Your task to perform on an android device: Open Google Maps Image 0: 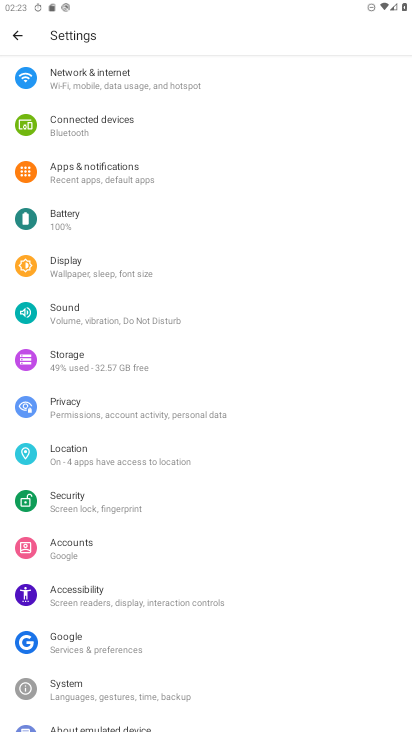
Step 0: press home button
Your task to perform on an android device: Open Google Maps Image 1: 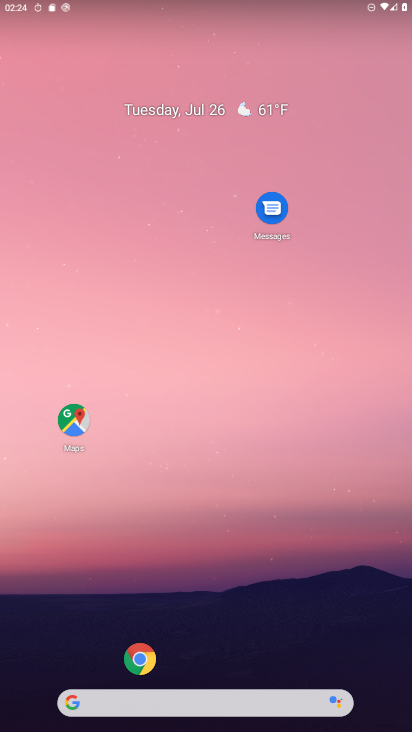
Step 1: drag from (47, 651) to (188, 202)
Your task to perform on an android device: Open Google Maps Image 2: 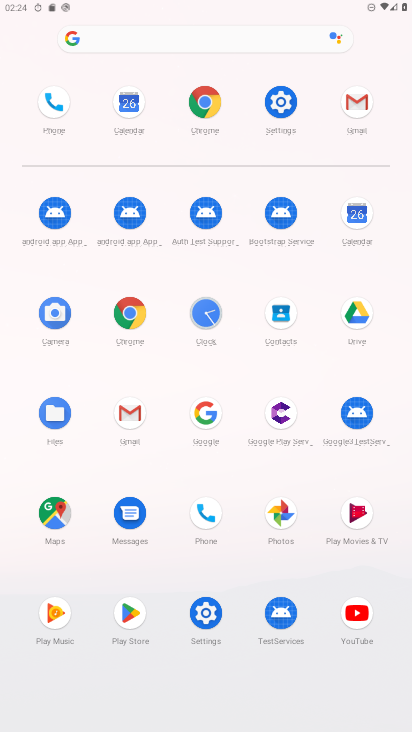
Step 2: click (64, 514)
Your task to perform on an android device: Open Google Maps Image 3: 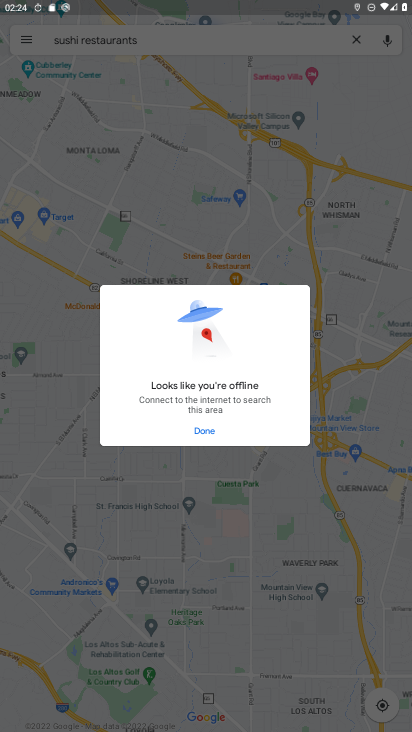
Step 3: click (206, 425)
Your task to perform on an android device: Open Google Maps Image 4: 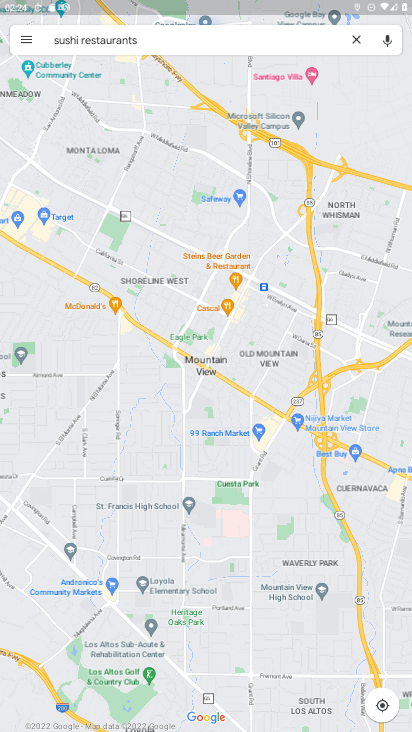
Step 4: click (352, 35)
Your task to perform on an android device: Open Google Maps Image 5: 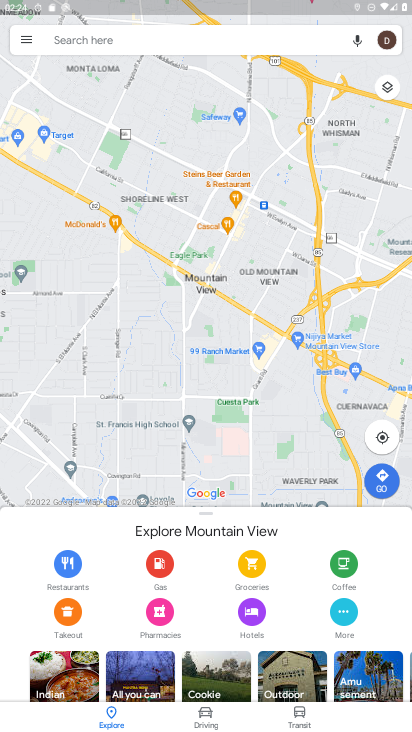
Step 5: task complete